Your task to perform on an android device: Go to wifi settings Image 0: 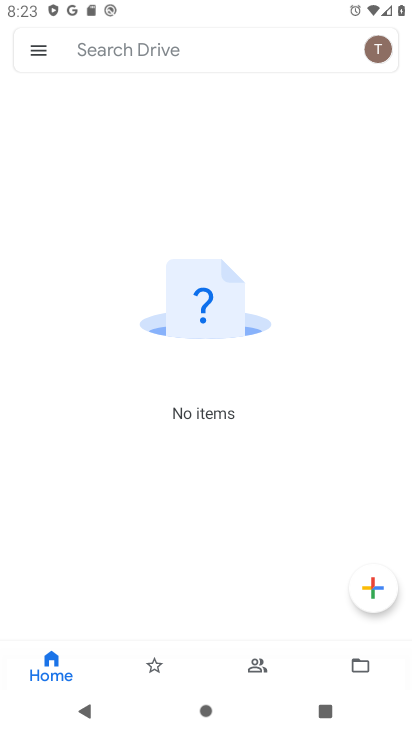
Step 0: press home button
Your task to perform on an android device: Go to wifi settings Image 1: 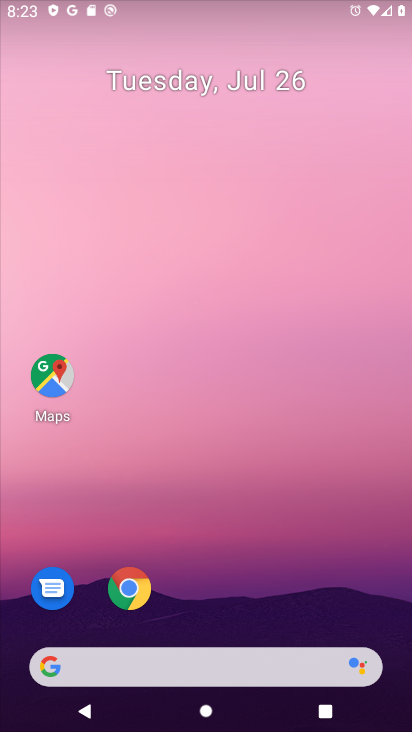
Step 1: drag from (232, 650) to (254, 87)
Your task to perform on an android device: Go to wifi settings Image 2: 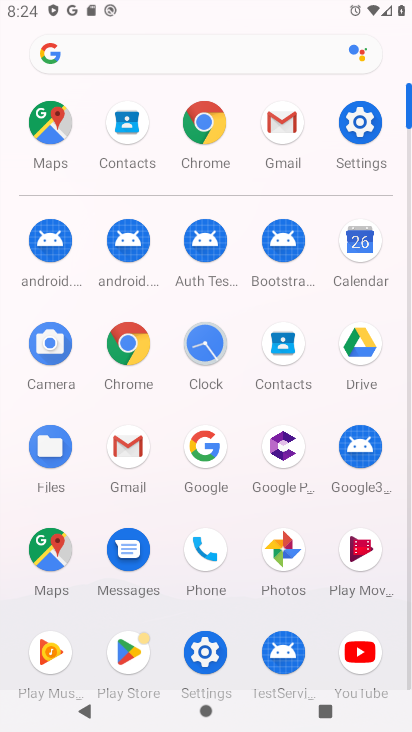
Step 2: click (377, 166)
Your task to perform on an android device: Go to wifi settings Image 3: 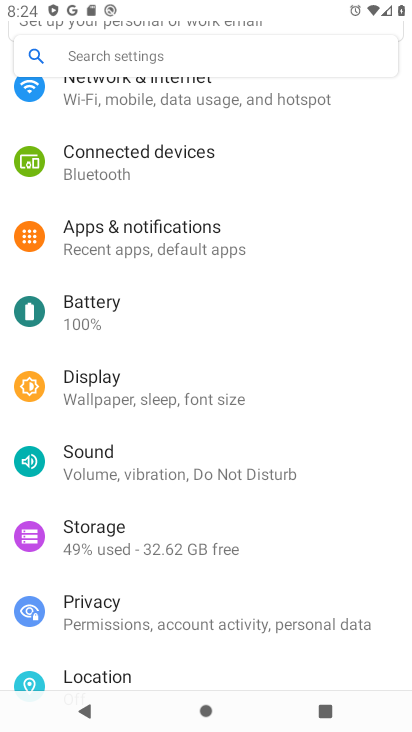
Step 3: drag from (220, 228) to (160, 730)
Your task to perform on an android device: Go to wifi settings Image 4: 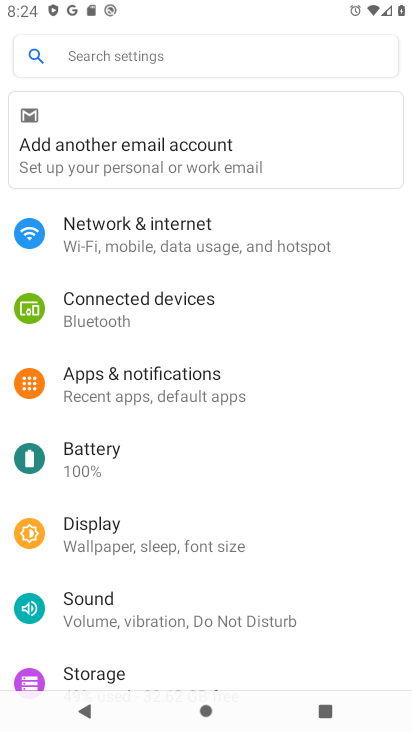
Step 4: click (182, 248)
Your task to perform on an android device: Go to wifi settings Image 5: 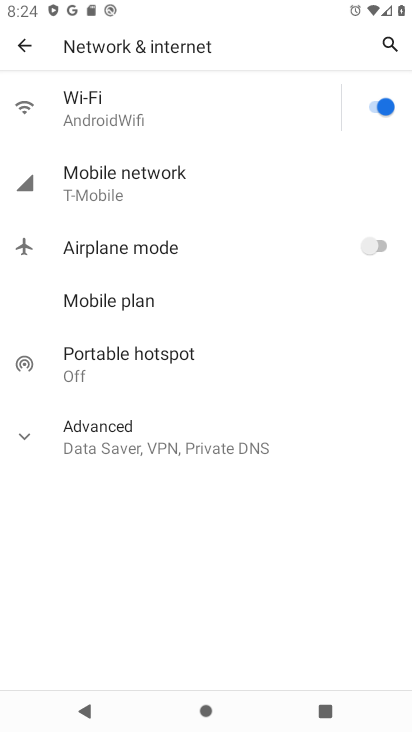
Step 5: click (252, 112)
Your task to perform on an android device: Go to wifi settings Image 6: 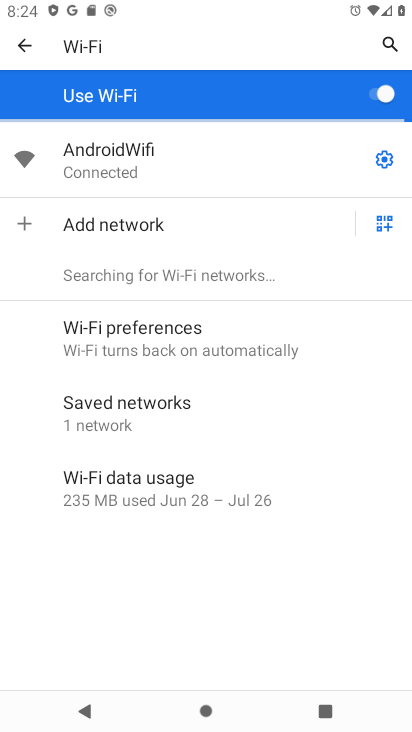
Step 6: task complete